Your task to perform on an android device: change keyboard looks Image 0: 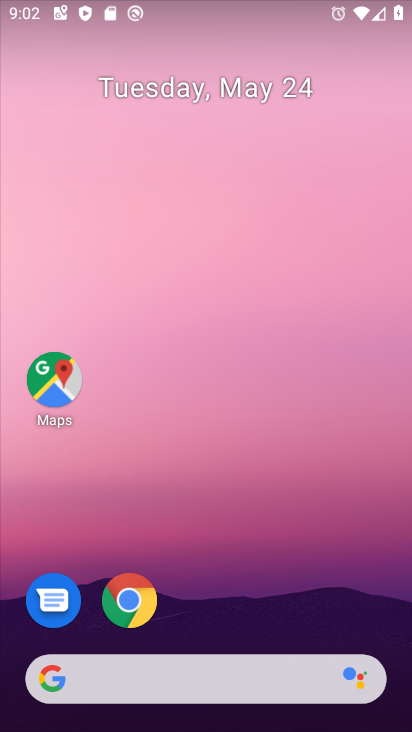
Step 0: drag from (206, 730) to (201, 150)
Your task to perform on an android device: change keyboard looks Image 1: 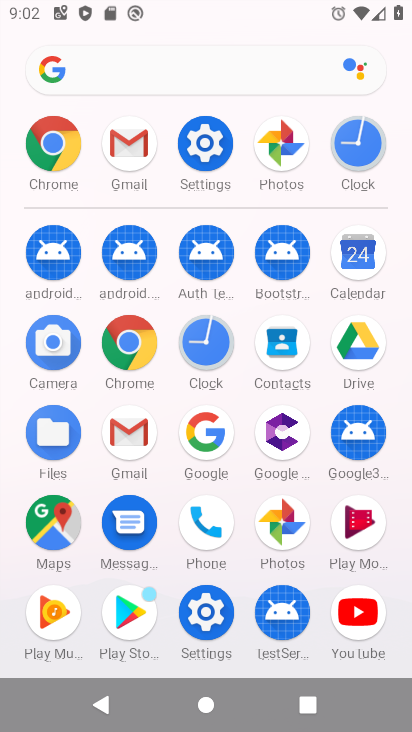
Step 1: click (210, 611)
Your task to perform on an android device: change keyboard looks Image 2: 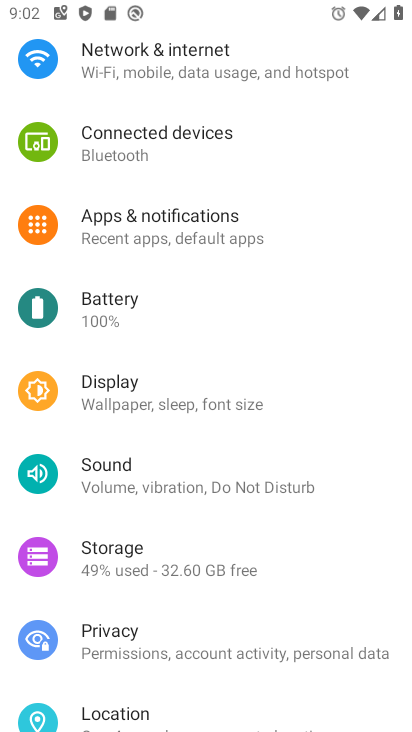
Step 2: drag from (173, 684) to (176, 224)
Your task to perform on an android device: change keyboard looks Image 3: 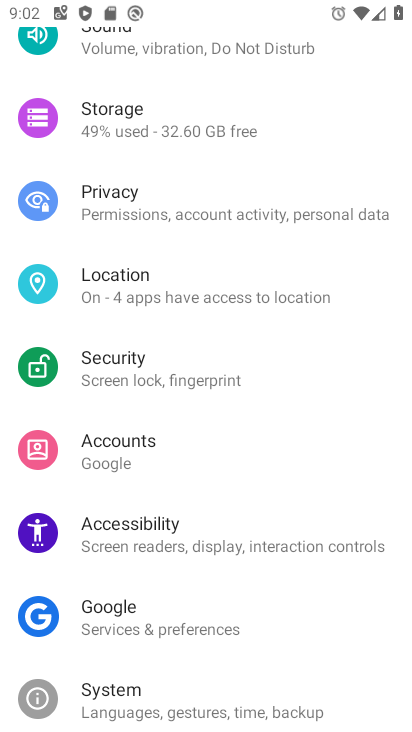
Step 3: drag from (126, 647) to (133, 212)
Your task to perform on an android device: change keyboard looks Image 4: 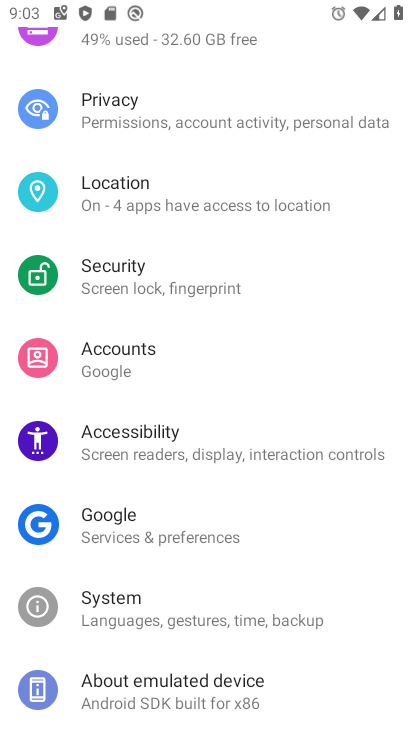
Step 4: click (140, 688)
Your task to perform on an android device: change keyboard looks Image 5: 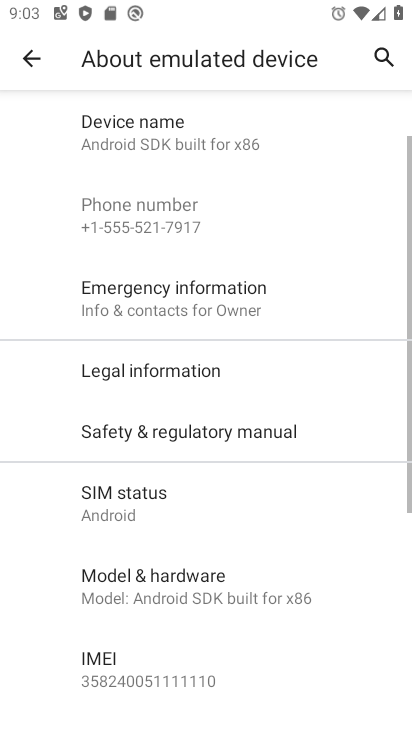
Step 5: click (26, 46)
Your task to perform on an android device: change keyboard looks Image 6: 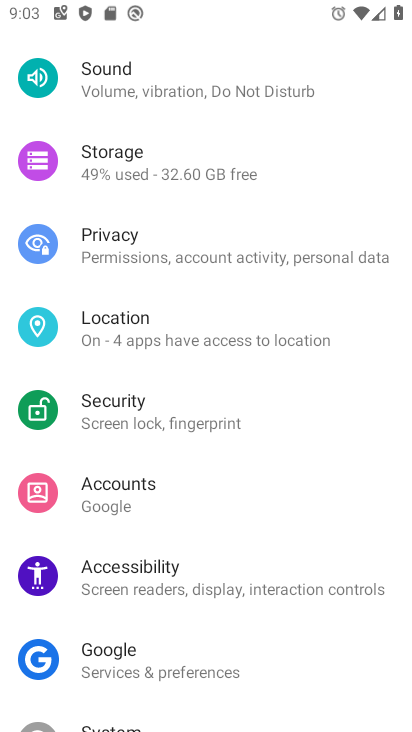
Step 6: click (177, 197)
Your task to perform on an android device: change keyboard looks Image 7: 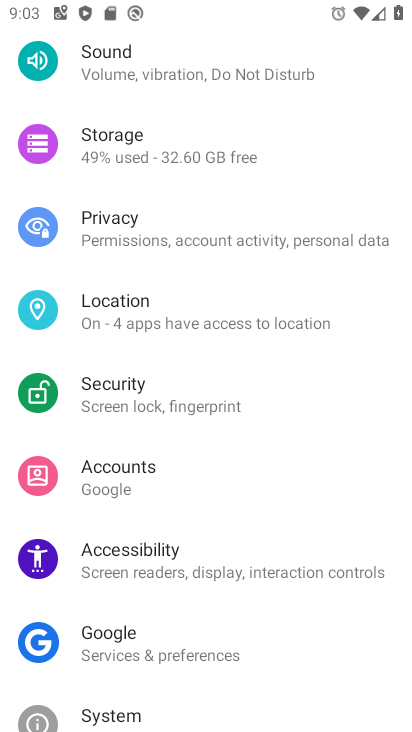
Step 7: drag from (154, 612) to (154, 269)
Your task to perform on an android device: change keyboard looks Image 8: 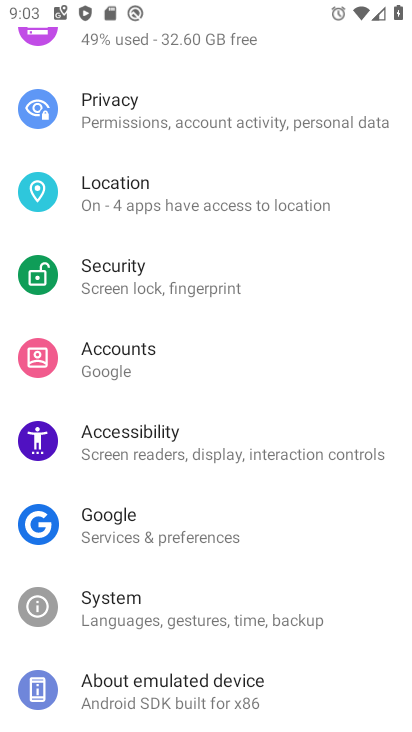
Step 8: click (131, 603)
Your task to perform on an android device: change keyboard looks Image 9: 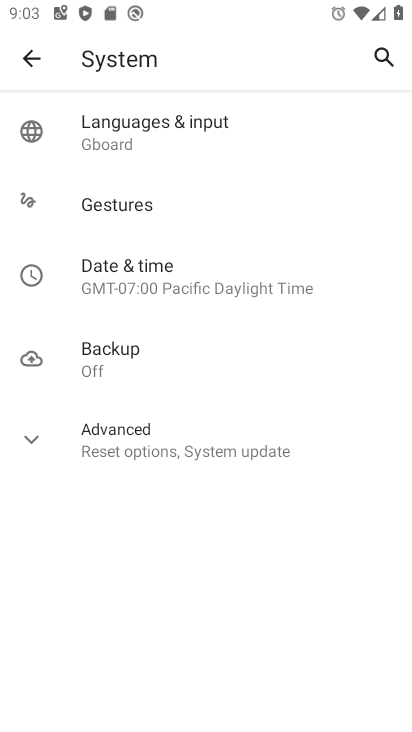
Step 9: click (120, 122)
Your task to perform on an android device: change keyboard looks Image 10: 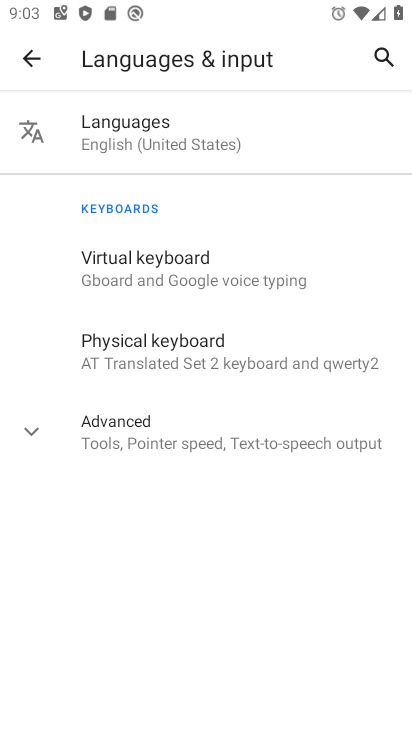
Step 10: click (124, 260)
Your task to perform on an android device: change keyboard looks Image 11: 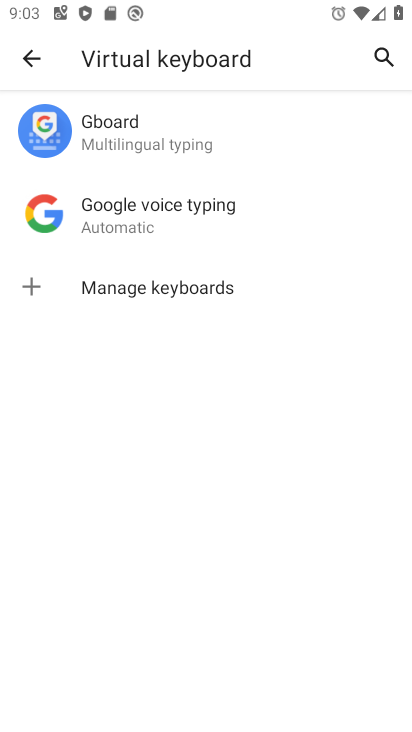
Step 11: click (120, 137)
Your task to perform on an android device: change keyboard looks Image 12: 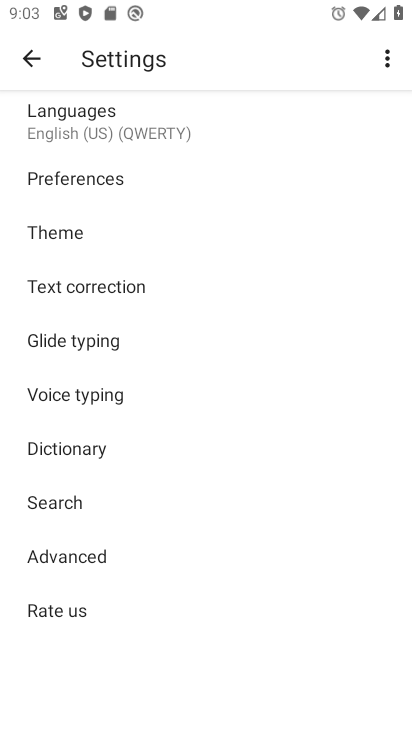
Step 12: click (58, 227)
Your task to perform on an android device: change keyboard looks Image 13: 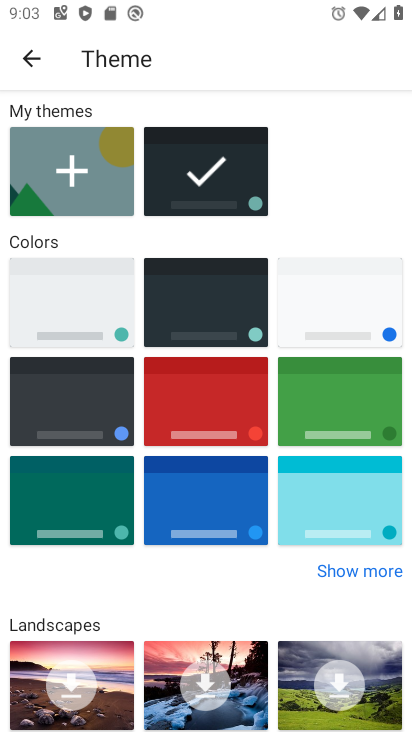
Step 13: click (333, 308)
Your task to perform on an android device: change keyboard looks Image 14: 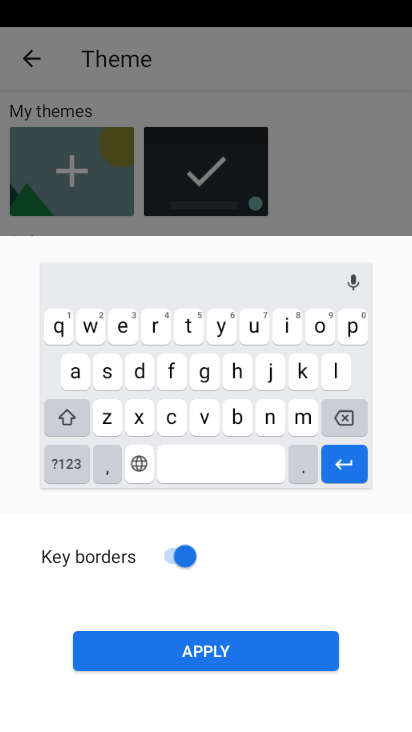
Step 14: click (186, 655)
Your task to perform on an android device: change keyboard looks Image 15: 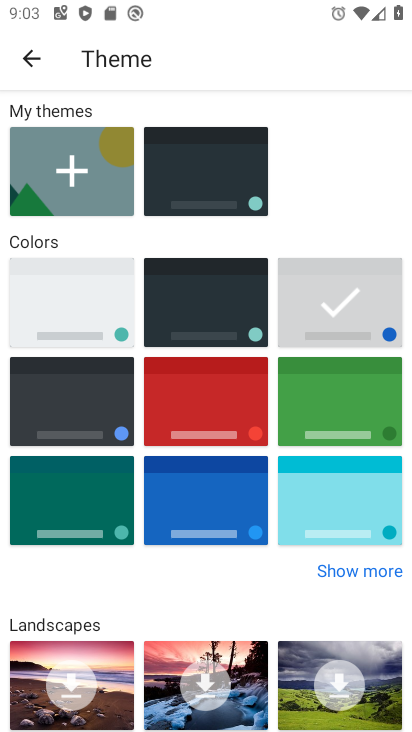
Step 15: task complete